Your task to perform on an android device: check out phone information Image 0: 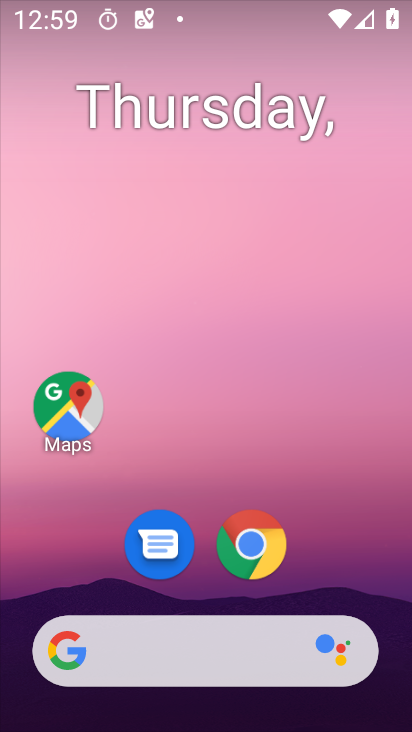
Step 0: drag from (15, 704) to (279, 213)
Your task to perform on an android device: check out phone information Image 1: 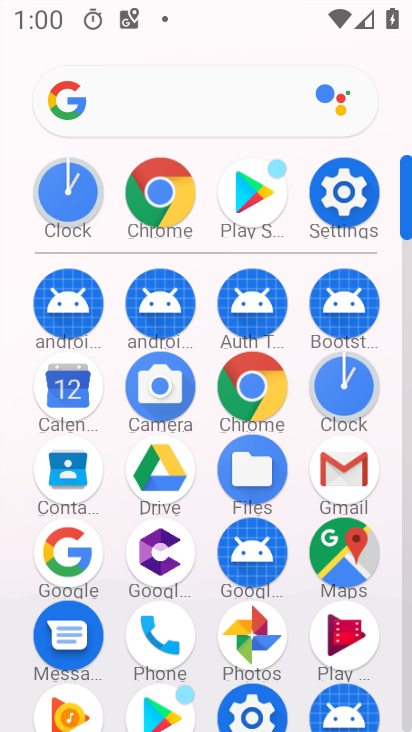
Step 1: click (168, 649)
Your task to perform on an android device: check out phone information Image 2: 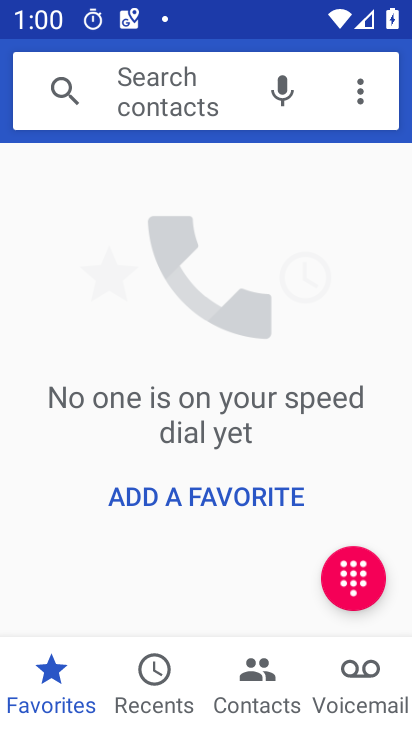
Step 2: click (366, 105)
Your task to perform on an android device: check out phone information Image 3: 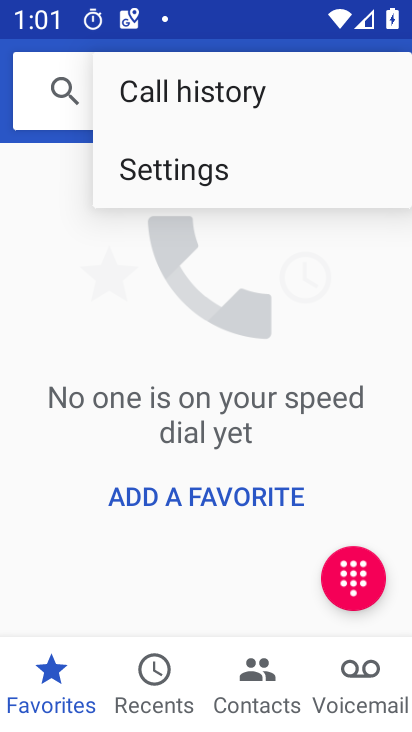
Step 3: task complete